Your task to perform on an android device: Go to Maps Image 0: 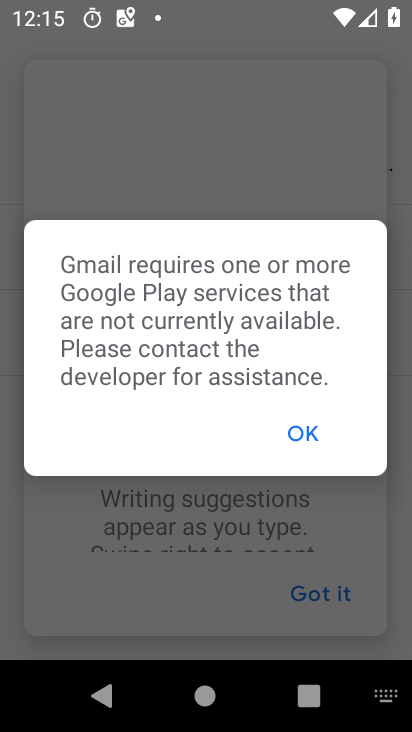
Step 0: press home button
Your task to perform on an android device: Go to Maps Image 1: 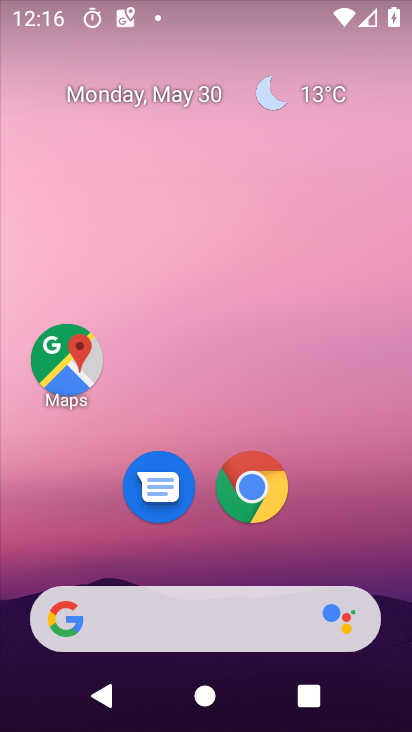
Step 1: click (72, 366)
Your task to perform on an android device: Go to Maps Image 2: 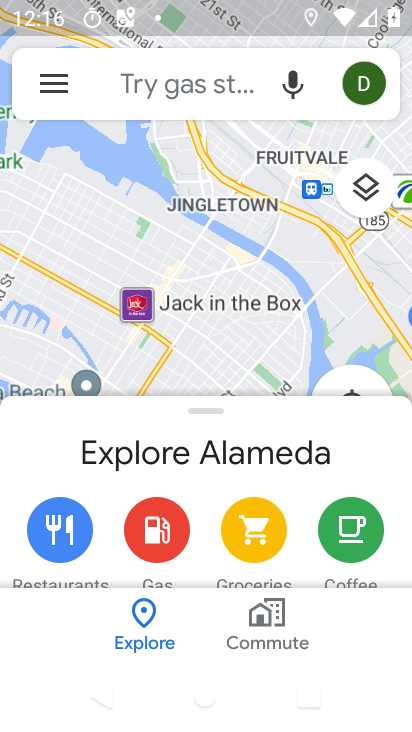
Step 2: task complete